Your task to perform on an android device: change your default location settings in chrome Image 0: 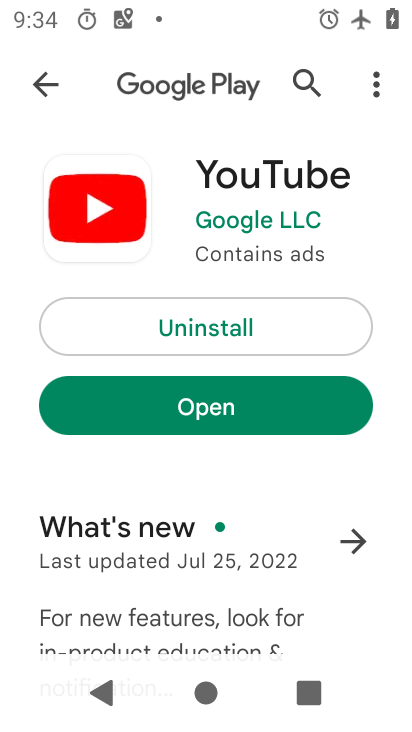
Step 0: press home button
Your task to perform on an android device: change your default location settings in chrome Image 1: 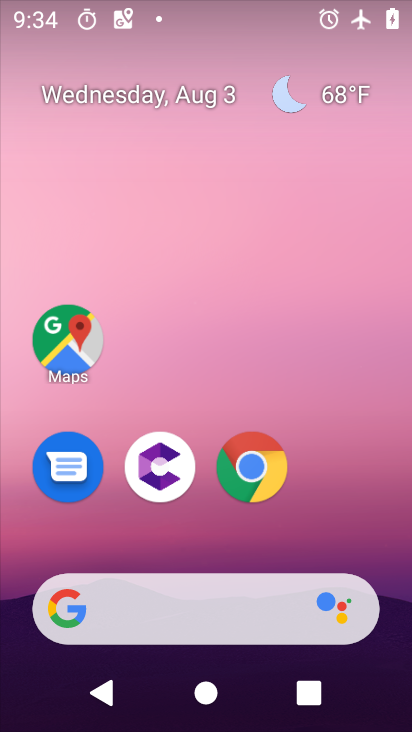
Step 1: drag from (324, 540) to (289, 9)
Your task to perform on an android device: change your default location settings in chrome Image 2: 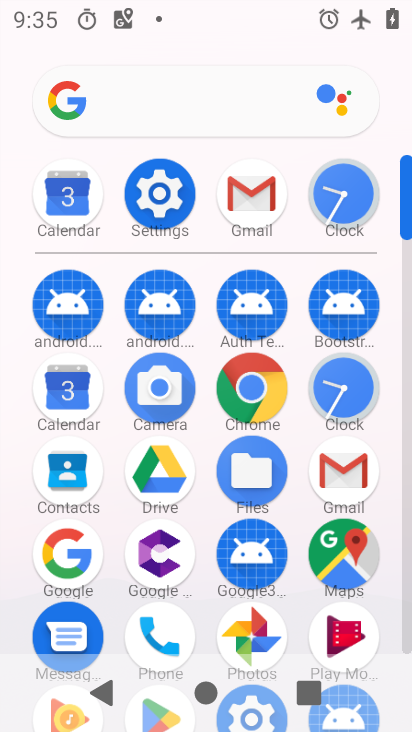
Step 2: click (257, 382)
Your task to perform on an android device: change your default location settings in chrome Image 3: 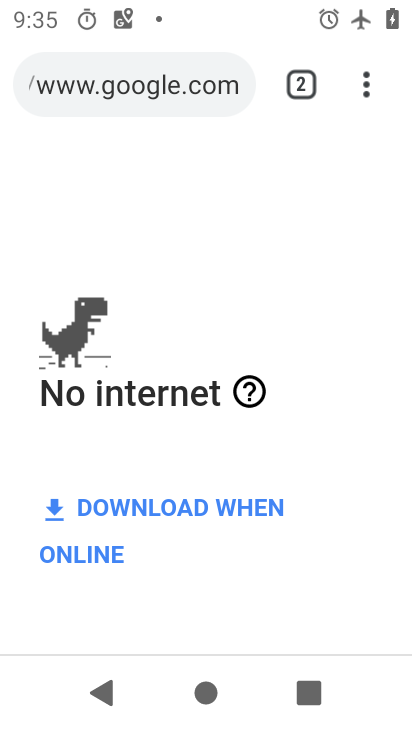
Step 3: drag from (372, 75) to (136, 506)
Your task to perform on an android device: change your default location settings in chrome Image 4: 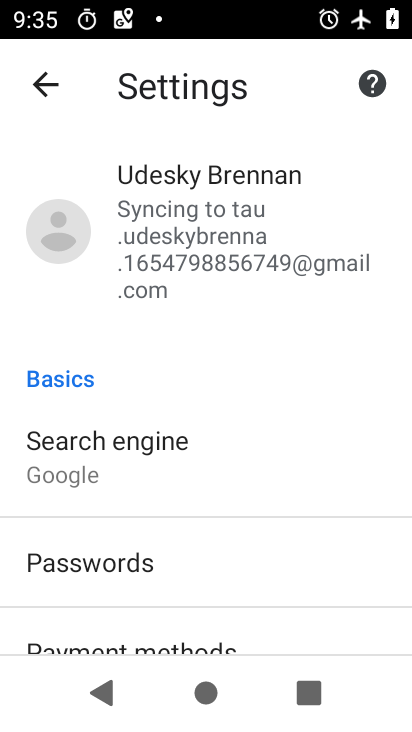
Step 4: drag from (192, 553) to (187, 66)
Your task to perform on an android device: change your default location settings in chrome Image 5: 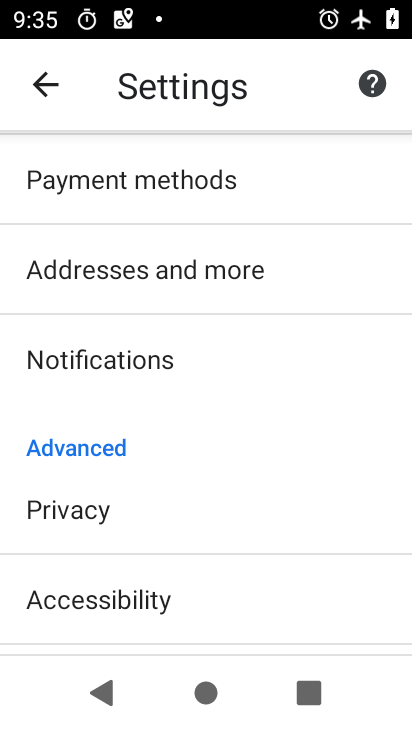
Step 5: drag from (208, 529) to (275, 173)
Your task to perform on an android device: change your default location settings in chrome Image 6: 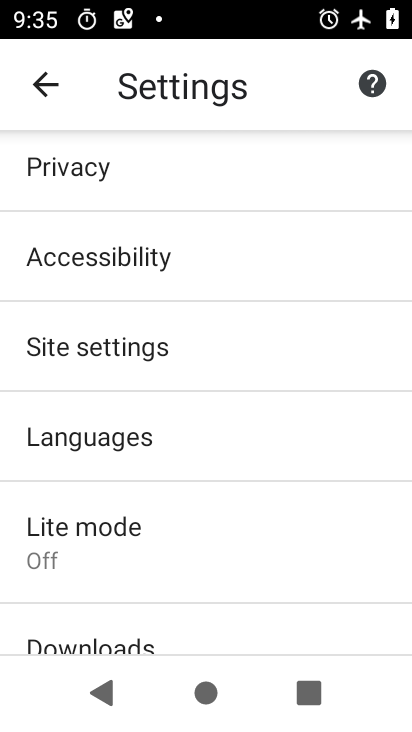
Step 6: click (152, 353)
Your task to perform on an android device: change your default location settings in chrome Image 7: 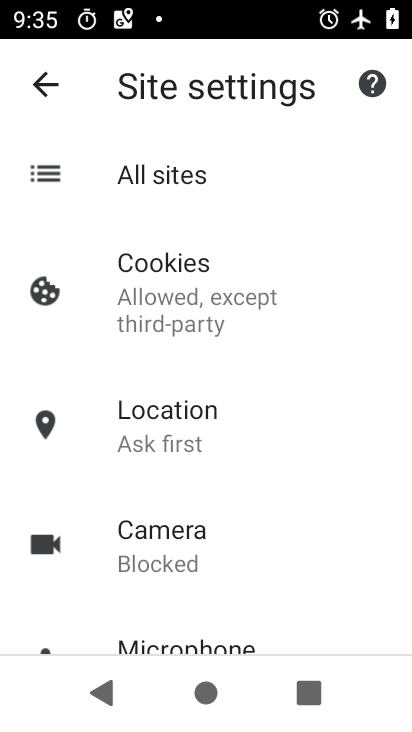
Step 7: click (135, 451)
Your task to perform on an android device: change your default location settings in chrome Image 8: 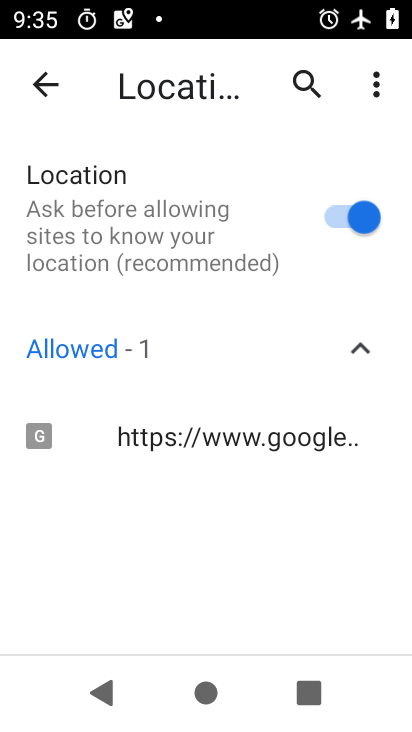
Step 8: click (365, 226)
Your task to perform on an android device: change your default location settings in chrome Image 9: 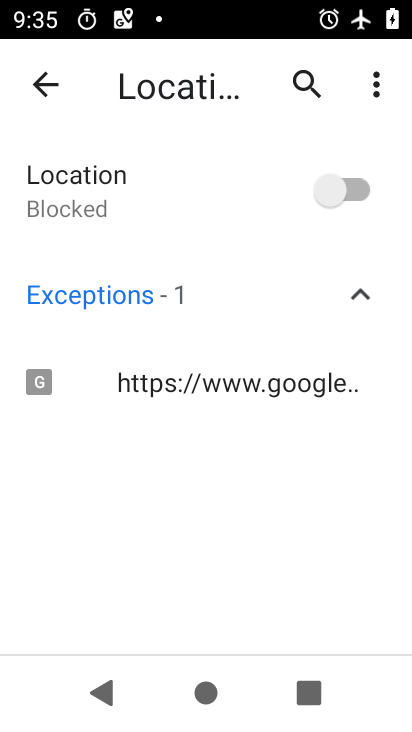
Step 9: task complete